Your task to perform on an android device: open device folders in google photos Image 0: 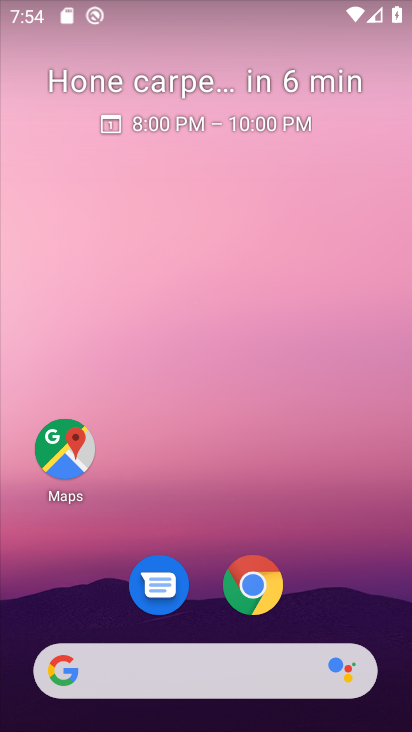
Step 0: drag from (320, 538) to (280, 29)
Your task to perform on an android device: open device folders in google photos Image 1: 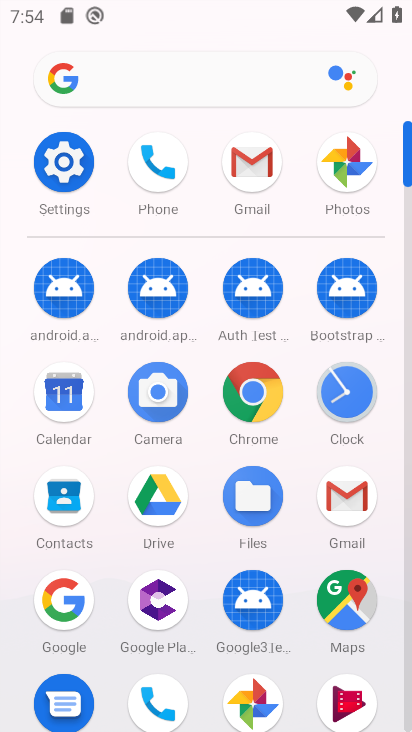
Step 1: click (336, 149)
Your task to perform on an android device: open device folders in google photos Image 2: 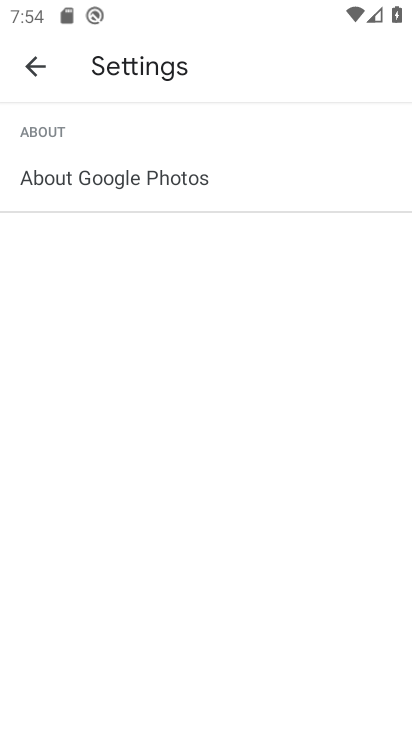
Step 2: click (37, 58)
Your task to perform on an android device: open device folders in google photos Image 3: 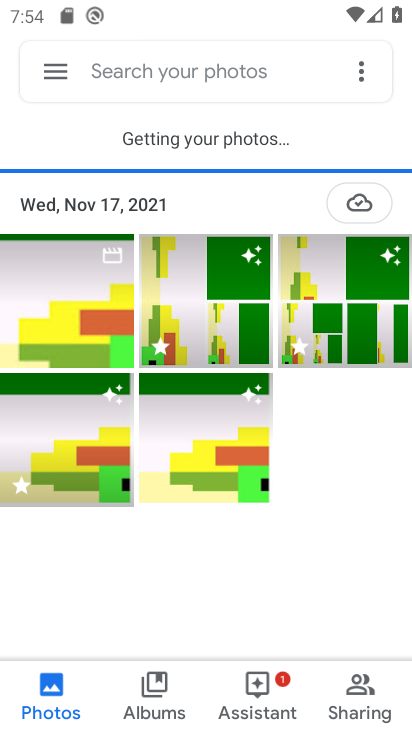
Step 3: click (51, 68)
Your task to perform on an android device: open device folders in google photos Image 4: 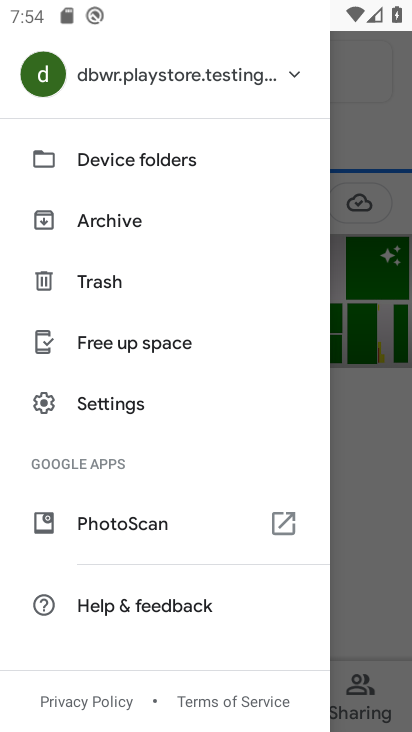
Step 4: click (103, 157)
Your task to perform on an android device: open device folders in google photos Image 5: 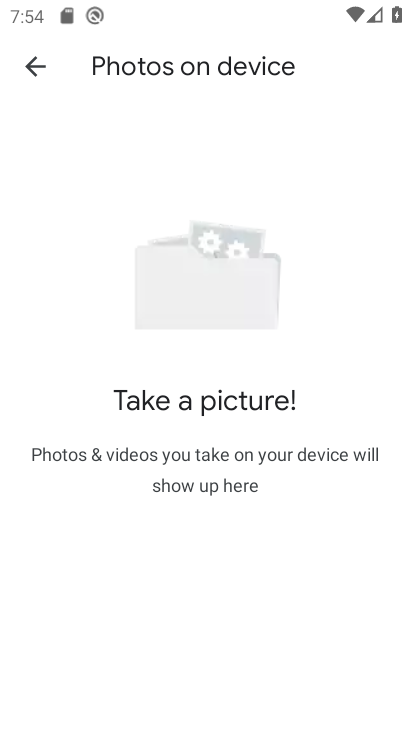
Step 5: task complete